Your task to perform on an android device: check google app version Image 0: 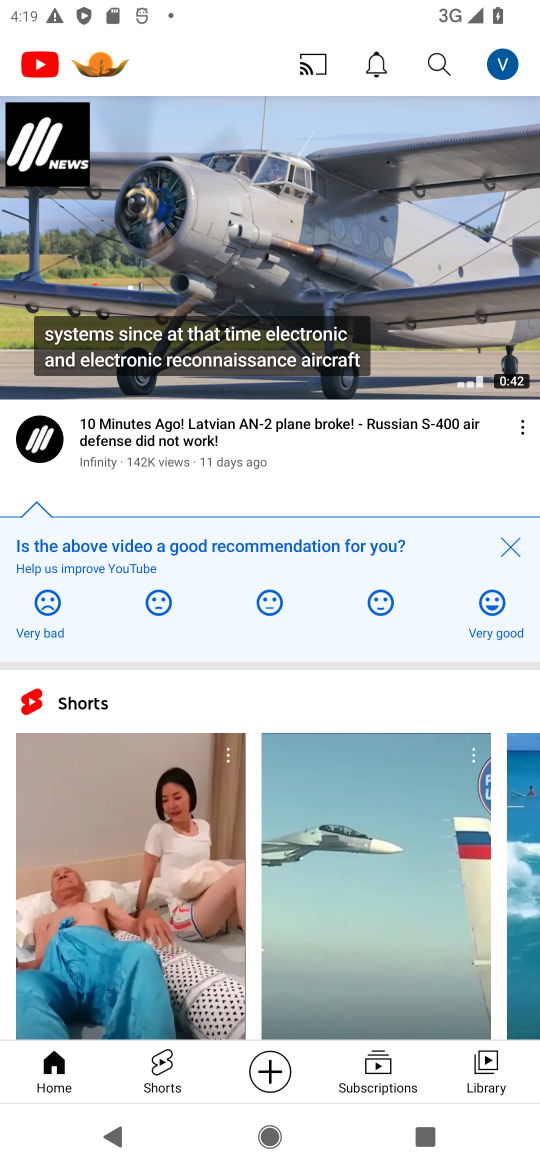
Step 0: press home button
Your task to perform on an android device: check google app version Image 1: 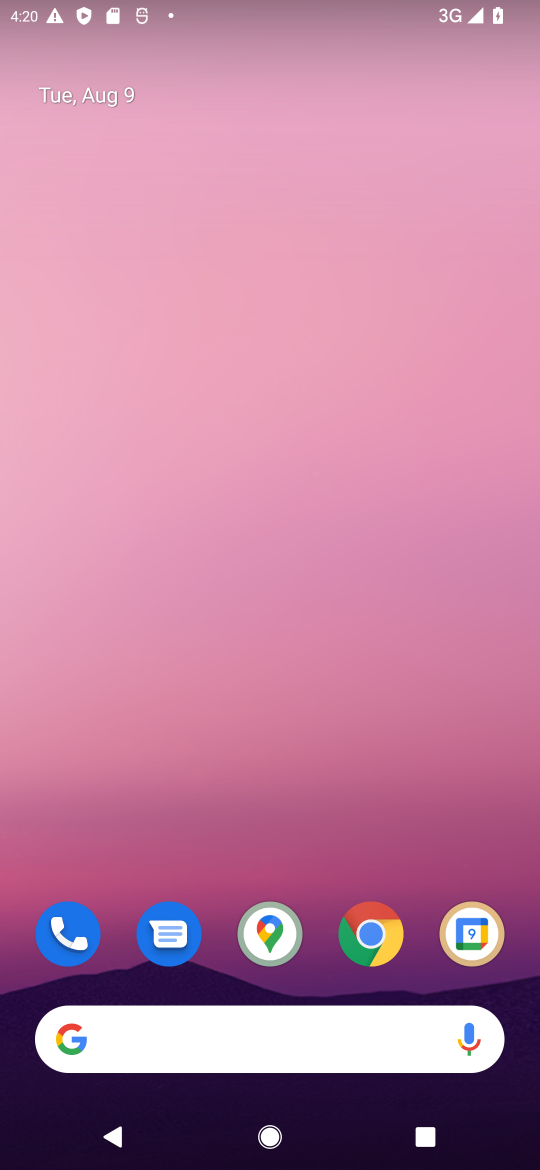
Step 1: click (360, 956)
Your task to perform on an android device: check google app version Image 2: 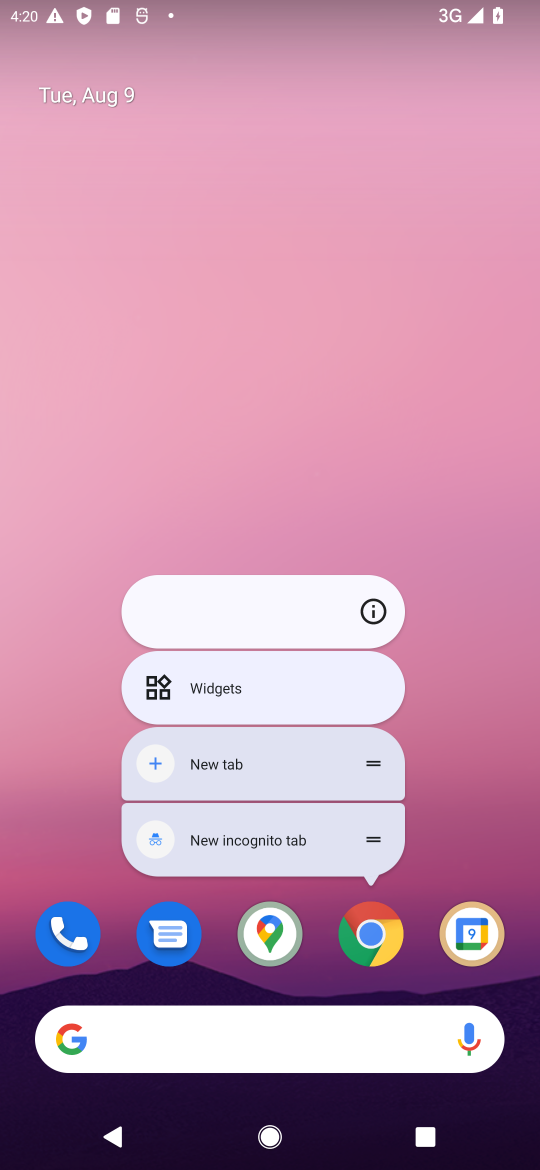
Step 2: click (362, 618)
Your task to perform on an android device: check google app version Image 3: 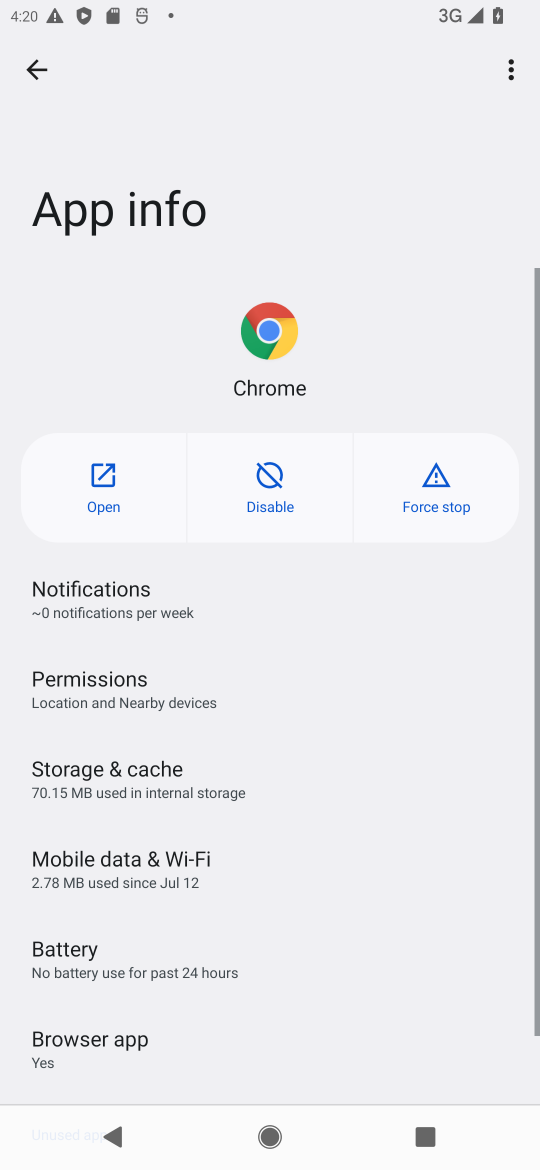
Step 3: task complete